Your task to perform on an android device: Open the map Image 0: 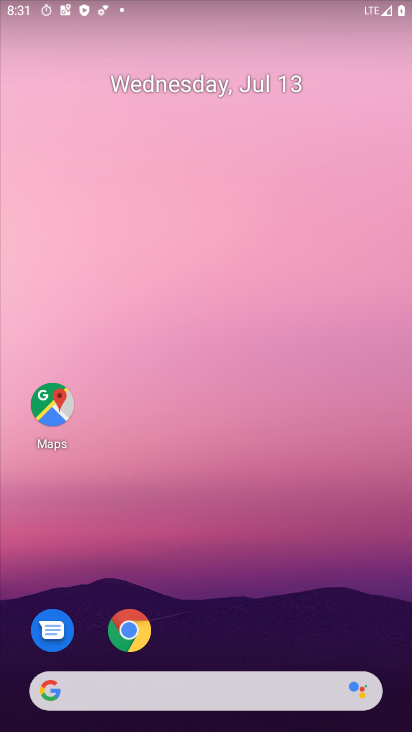
Step 0: drag from (353, 618) to (347, 179)
Your task to perform on an android device: Open the map Image 1: 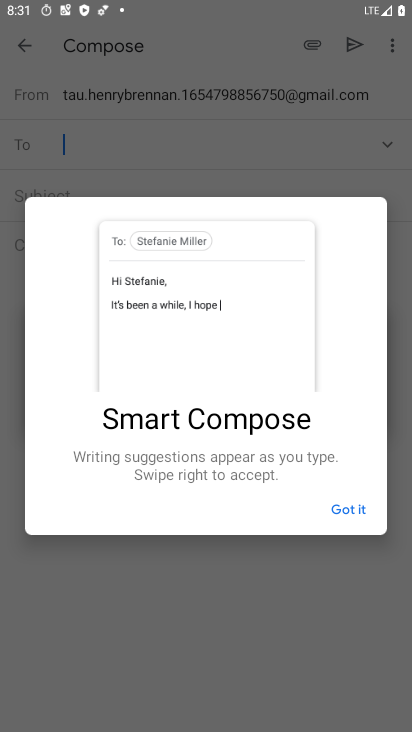
Step 1: press home button
Your task to perform on an android device: Open the map Image 2: 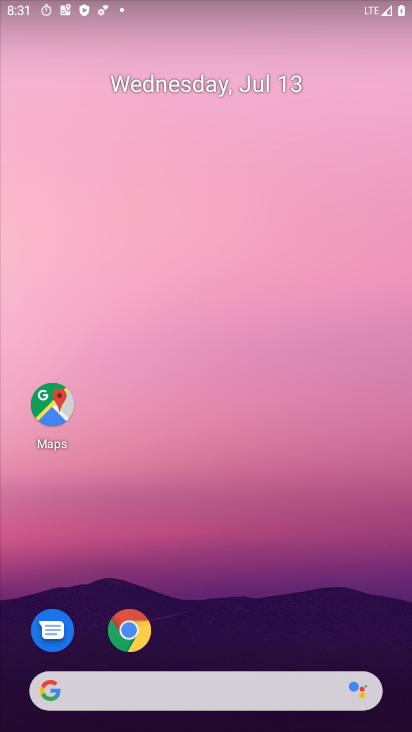
Step 2: drag from (355, 634) to (386, 120)
Your task to perform on an android device: Open the map Image 3: 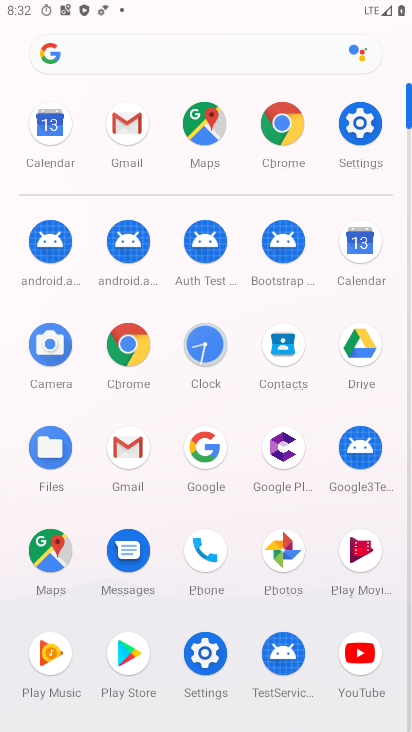
Step 3: click (47, 570)
Your task to perform on an android device: Open the map Image 4: 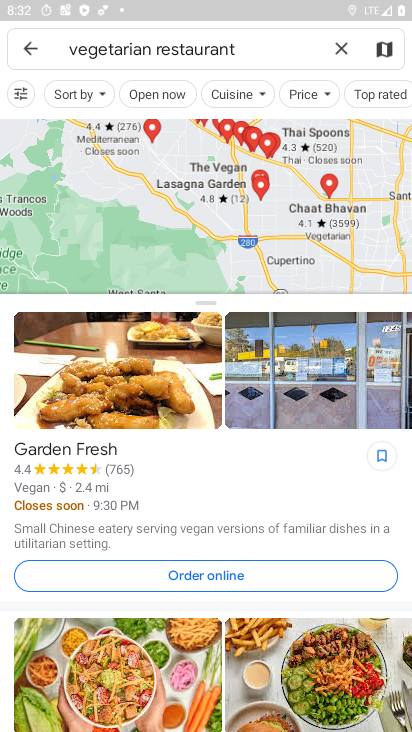
Step 4: task complete